Your task to perform on an android device: toggle show notifications on the lock screen Image 0: 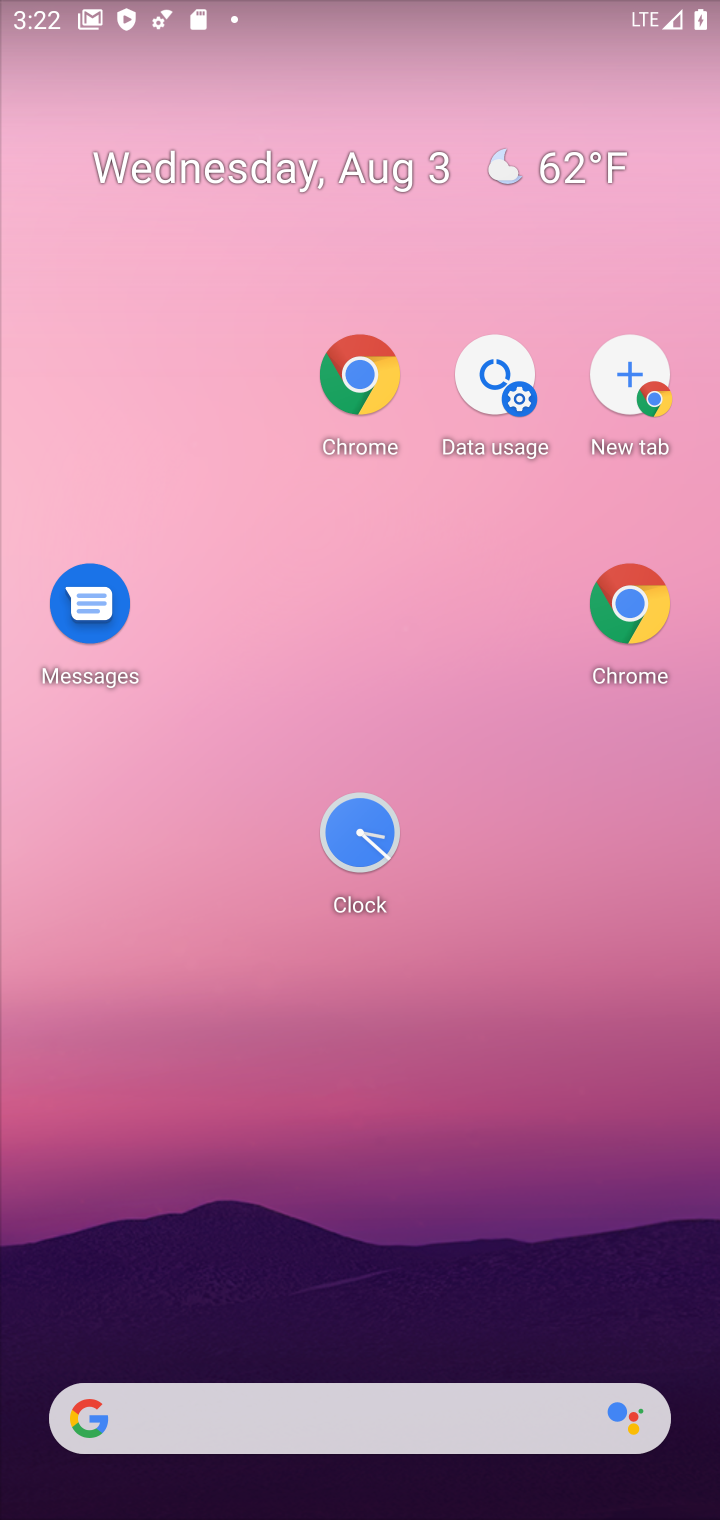
Step 0: drag from (501, 1383) to (300, 368)
Your task to perform on an android device: toggle show notifications on the lock screen Image 1: 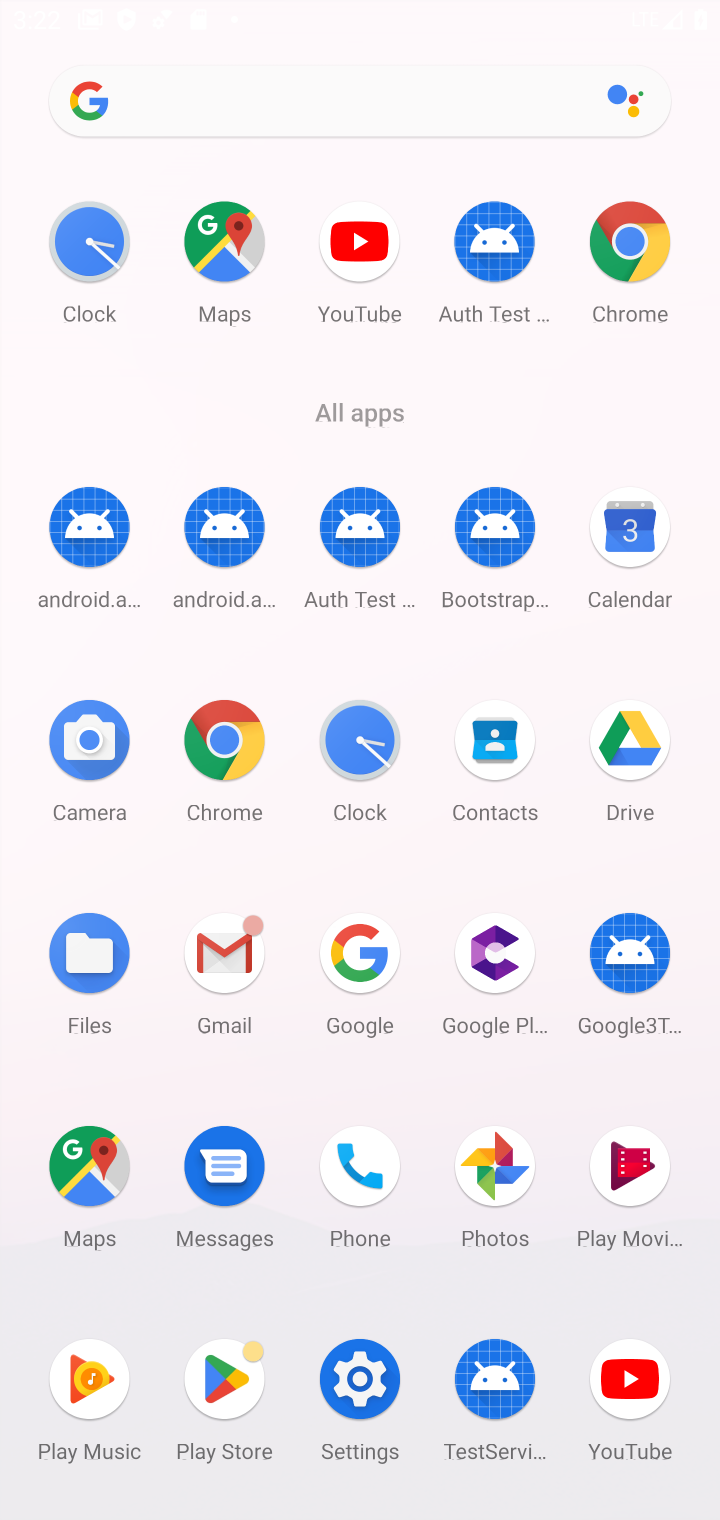
Step 1: drag from (457, 689) to (437, 392)
Your task to perform on an android device: toggle show notifications on the lock screen Image 2: 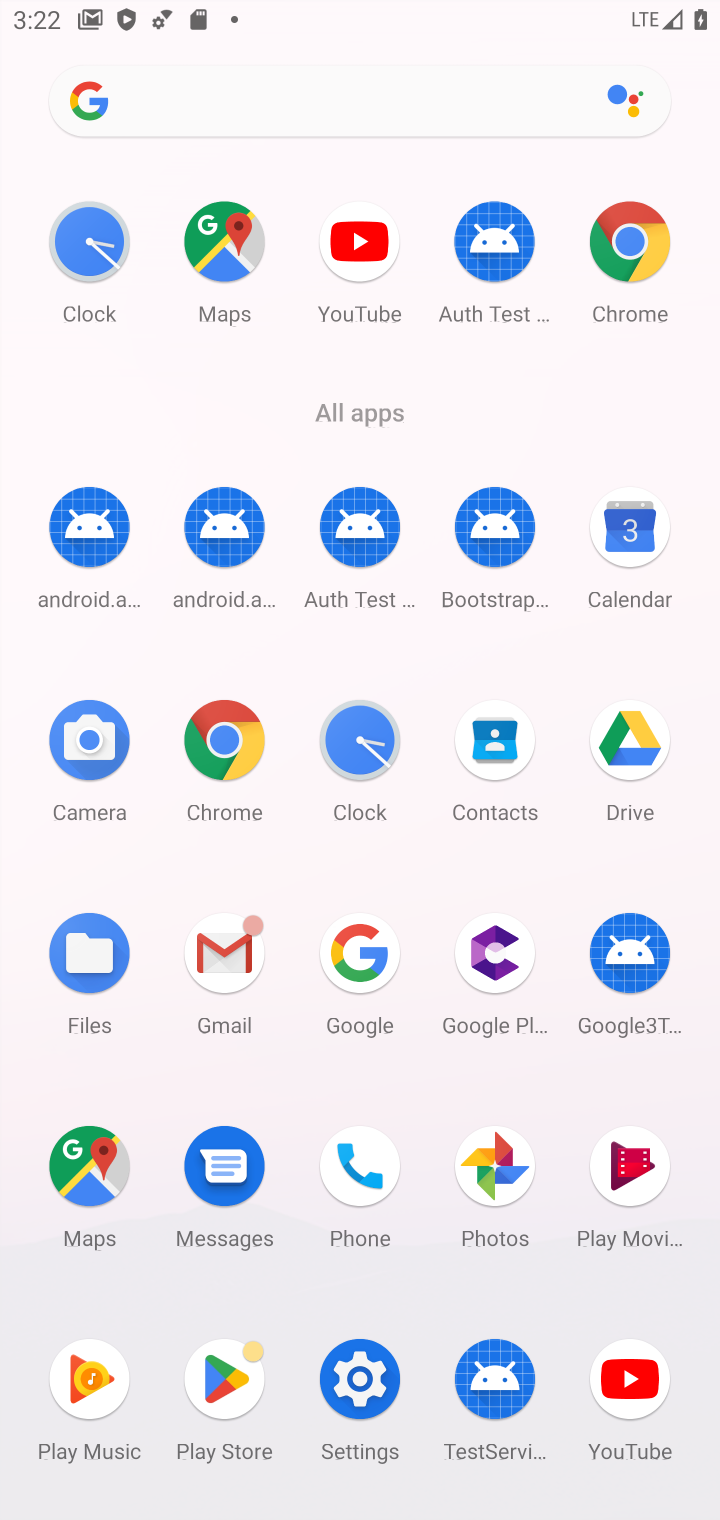
Step 2: click (343, 1372)
Your task to perform on an android device: toggle show notifications on the lock screen Image 3: 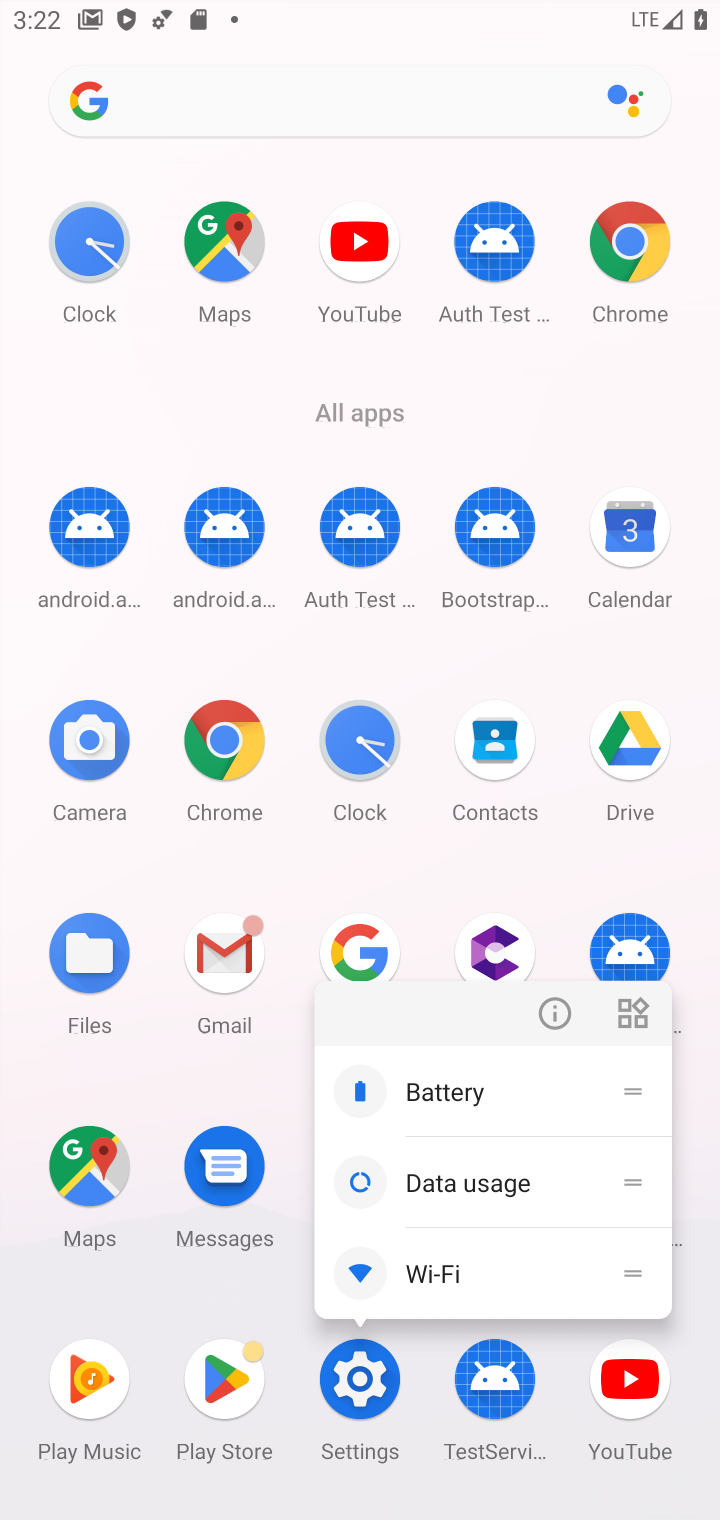
Step 3: click (349, 1369)
Your task to perform on an android device: toggle show notifications on the lock screen Image 4: 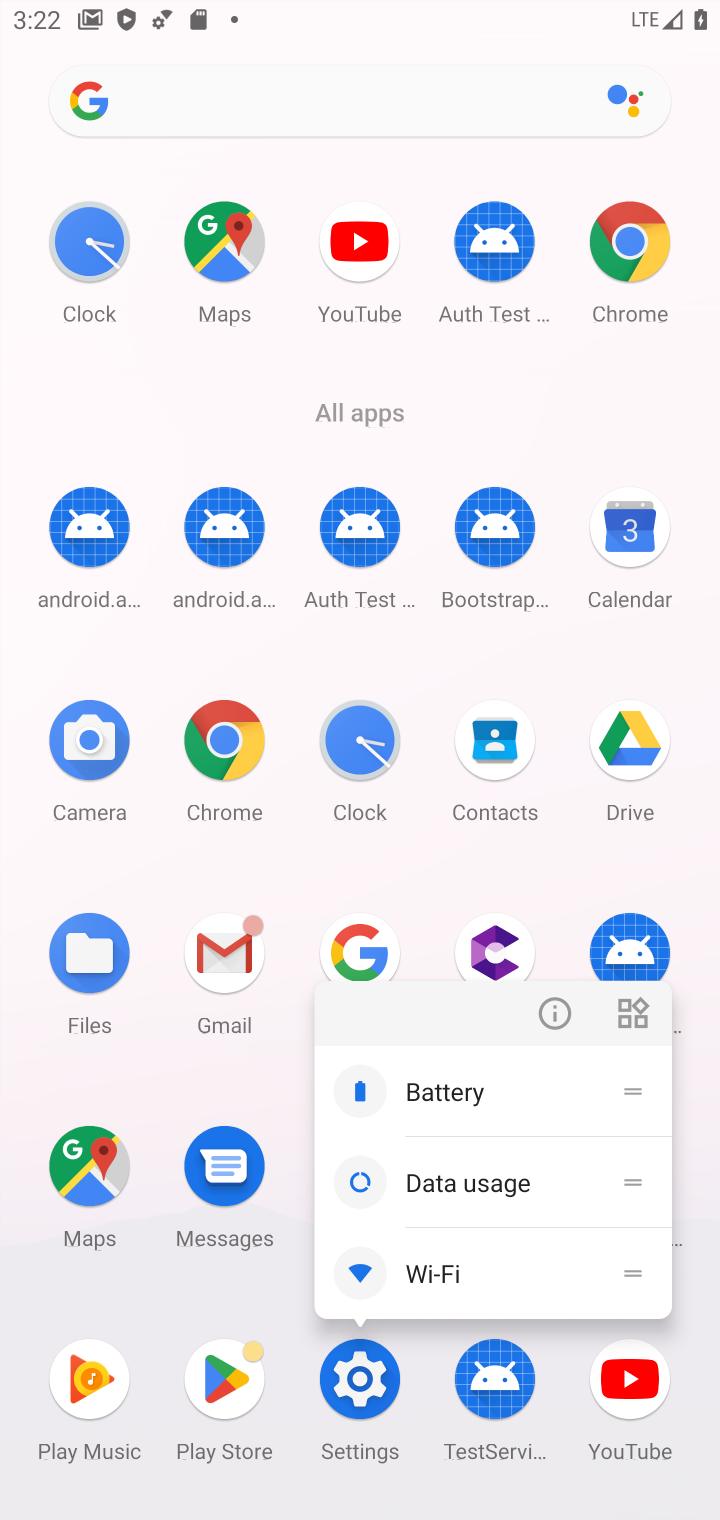
Step 4: click (356, 1384)
Your task to perform on an android device: toggle show notifications on the lock screen Image 5: 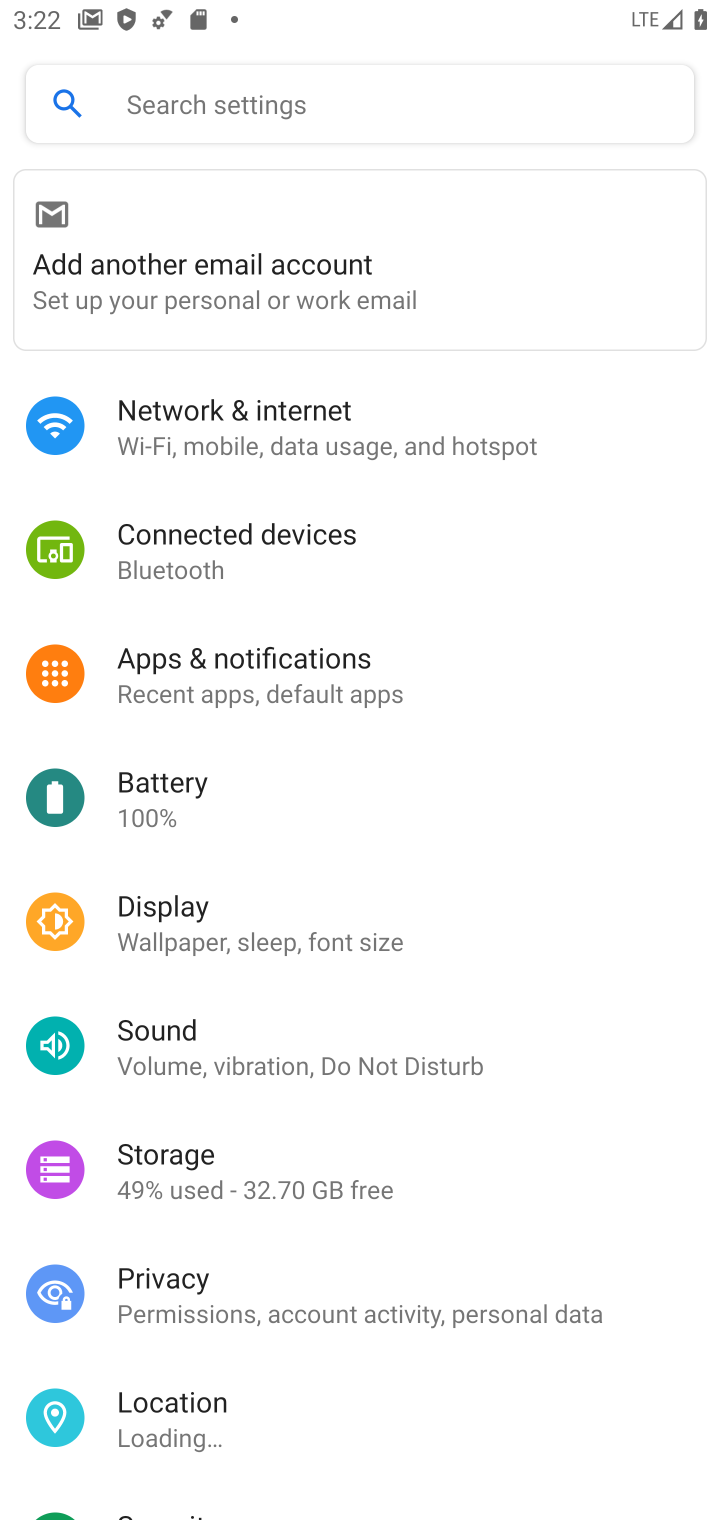
Step 5: click (175, 444)
Your task to perform on an android device: toggle show notifications on the lock screen Image 6: 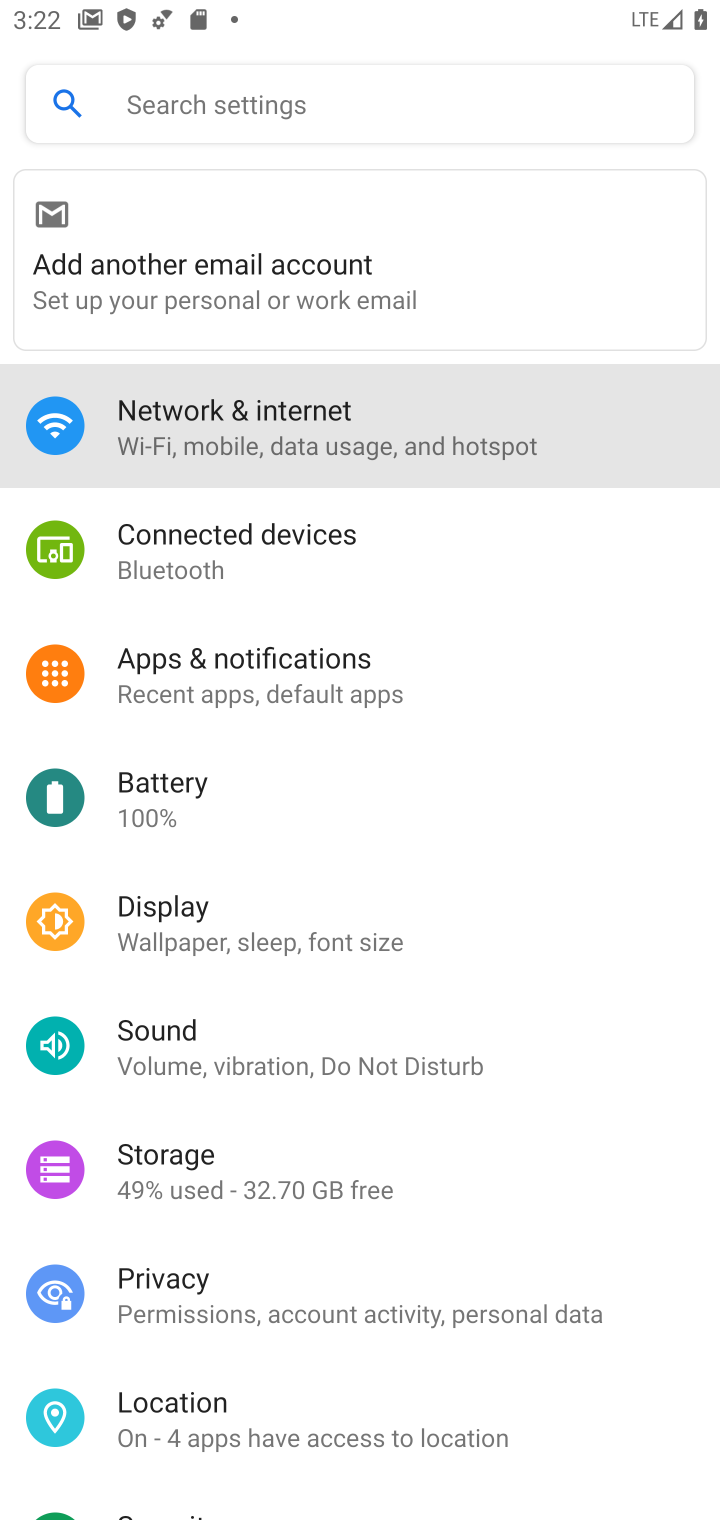
Step 6: click (196, 668)
Your task to perform on an android device: toggle show notifications on the lock screen Image 7: 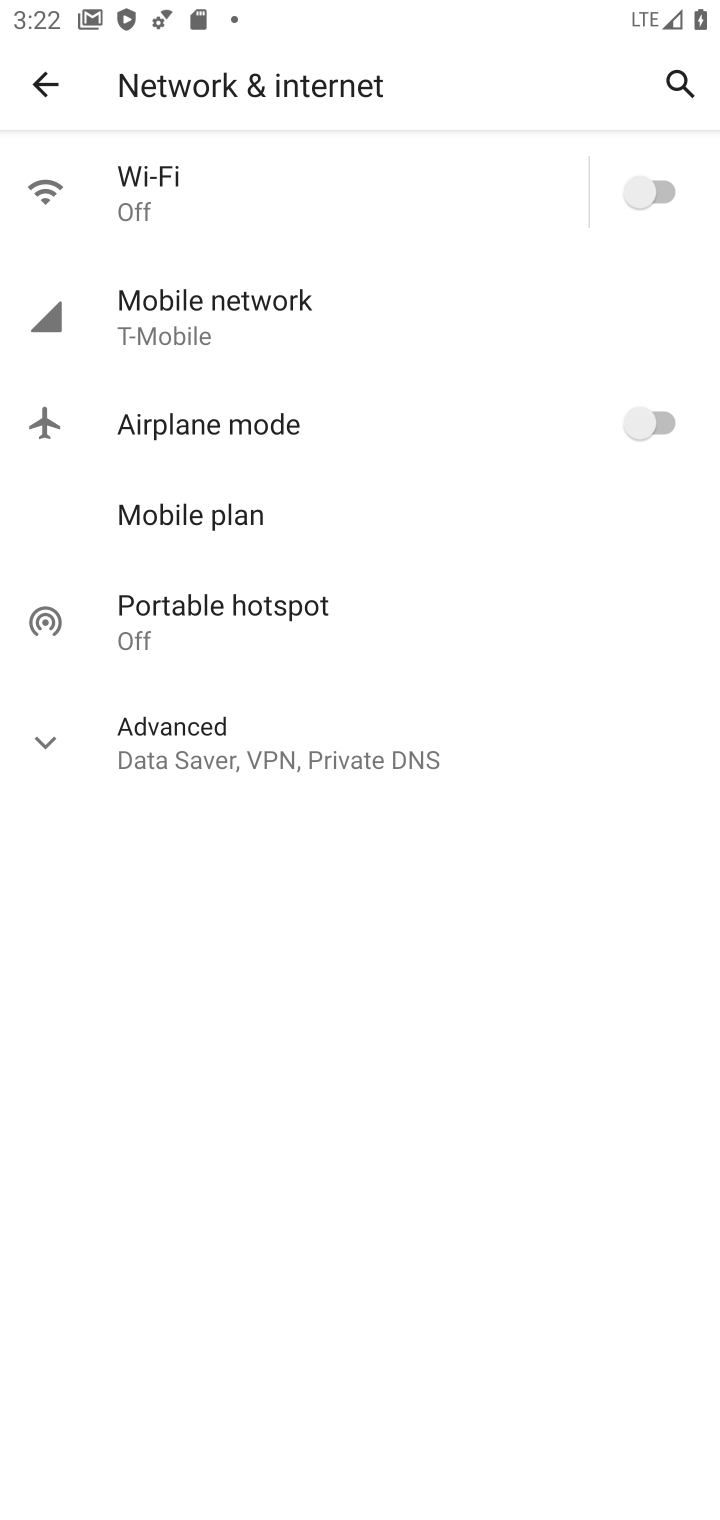
Step 7: click (36, 84)
Your task to perform on an android device: toggle show notifications on the lock screen Image 8: 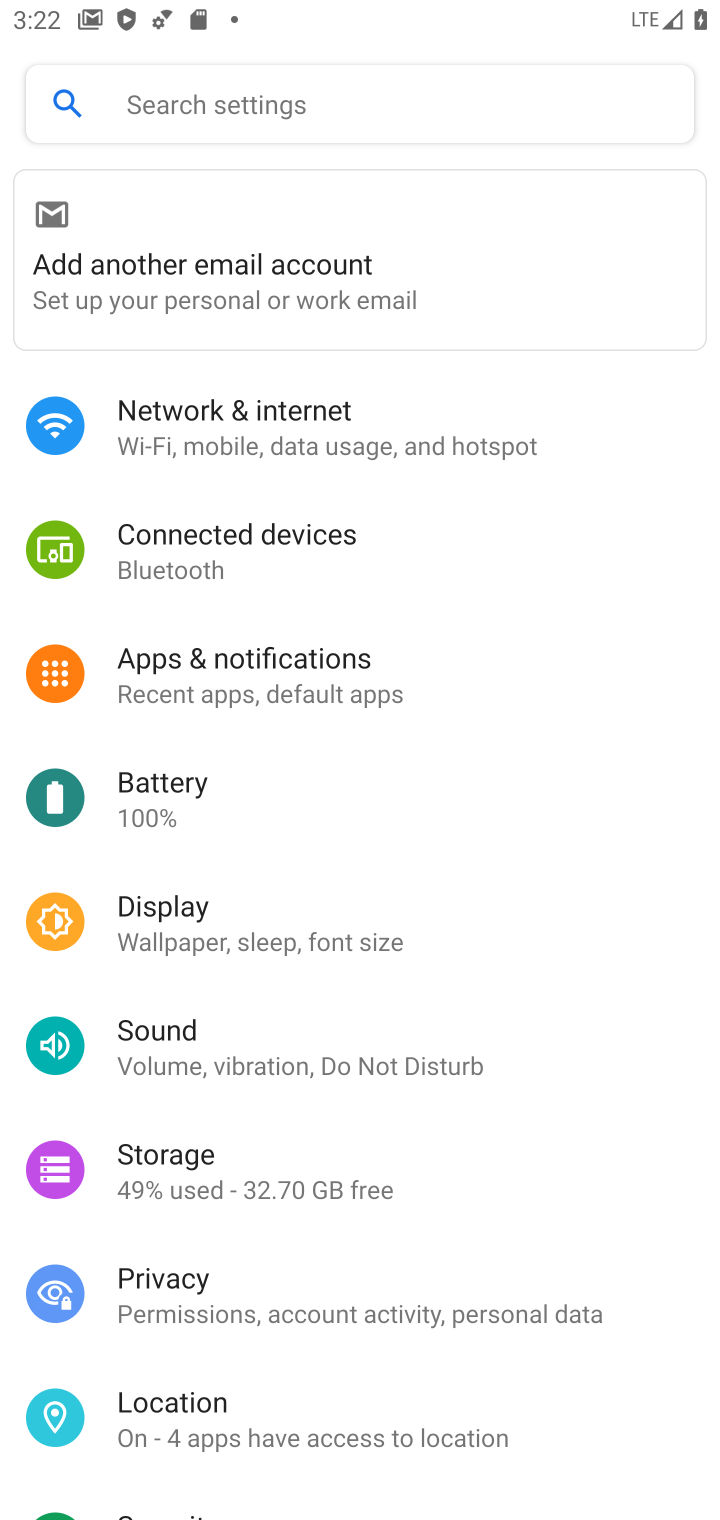
Step 8: click (238, 553)
Your task to perform on an android device: toggle show notifications on the lock screen Image 9: 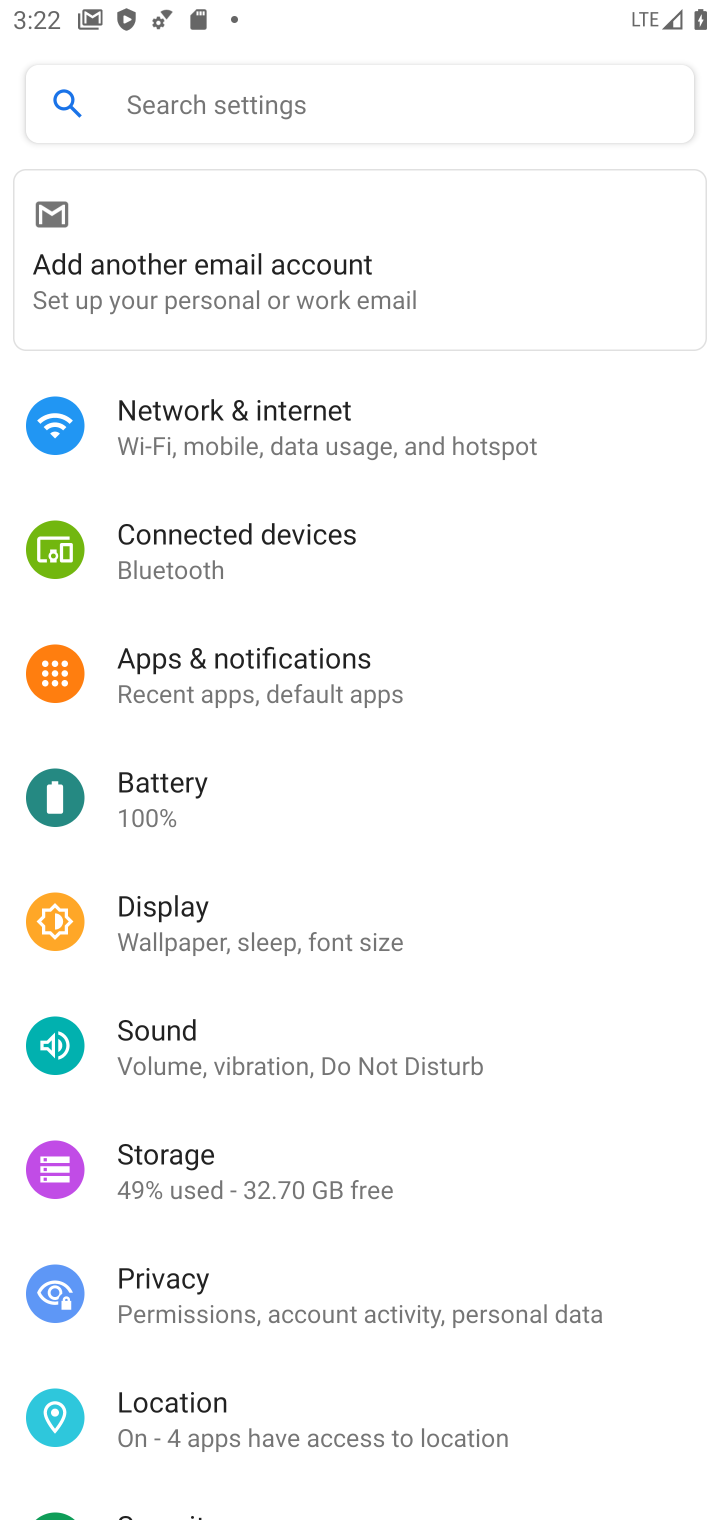
Step 9: click (203, 679)
Your task to perform on an android device: toggle show notifications on the lock screen Image 10: 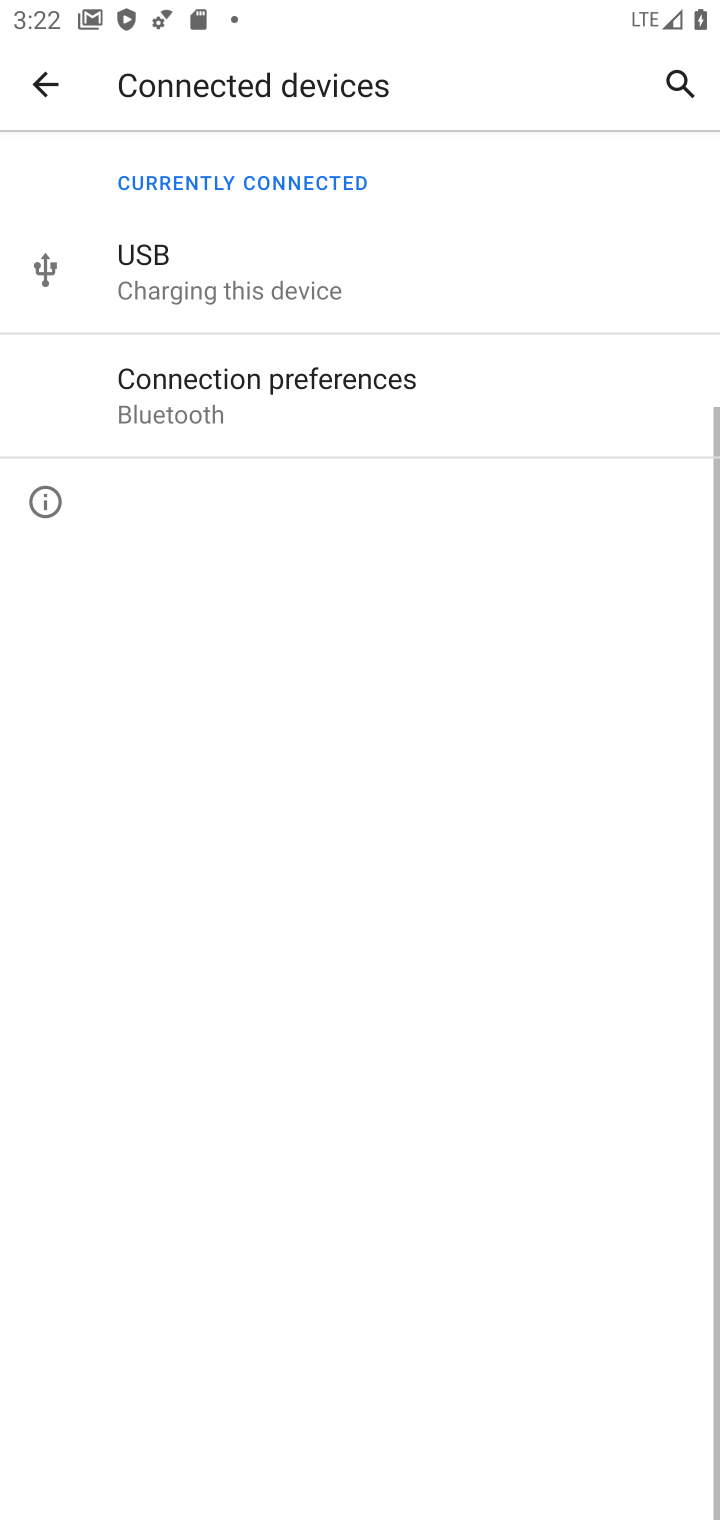
Step 10: click (203, 679)
Your task to perform on an android device: toggle show notifications on the lock screen Image 11: 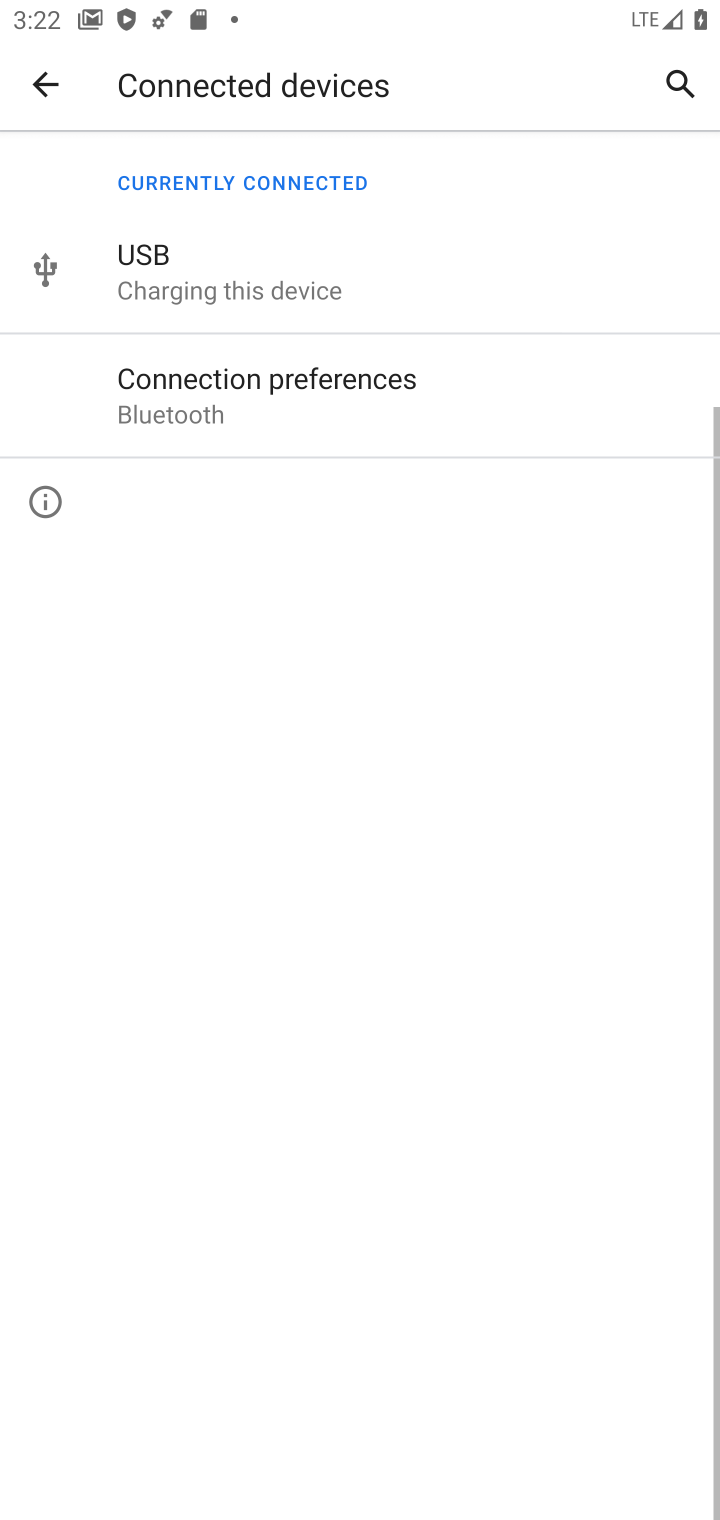
Step 11: click (46, 67)
Your task to perform on an android device: toggle show notifications on the lock screen Image 12: 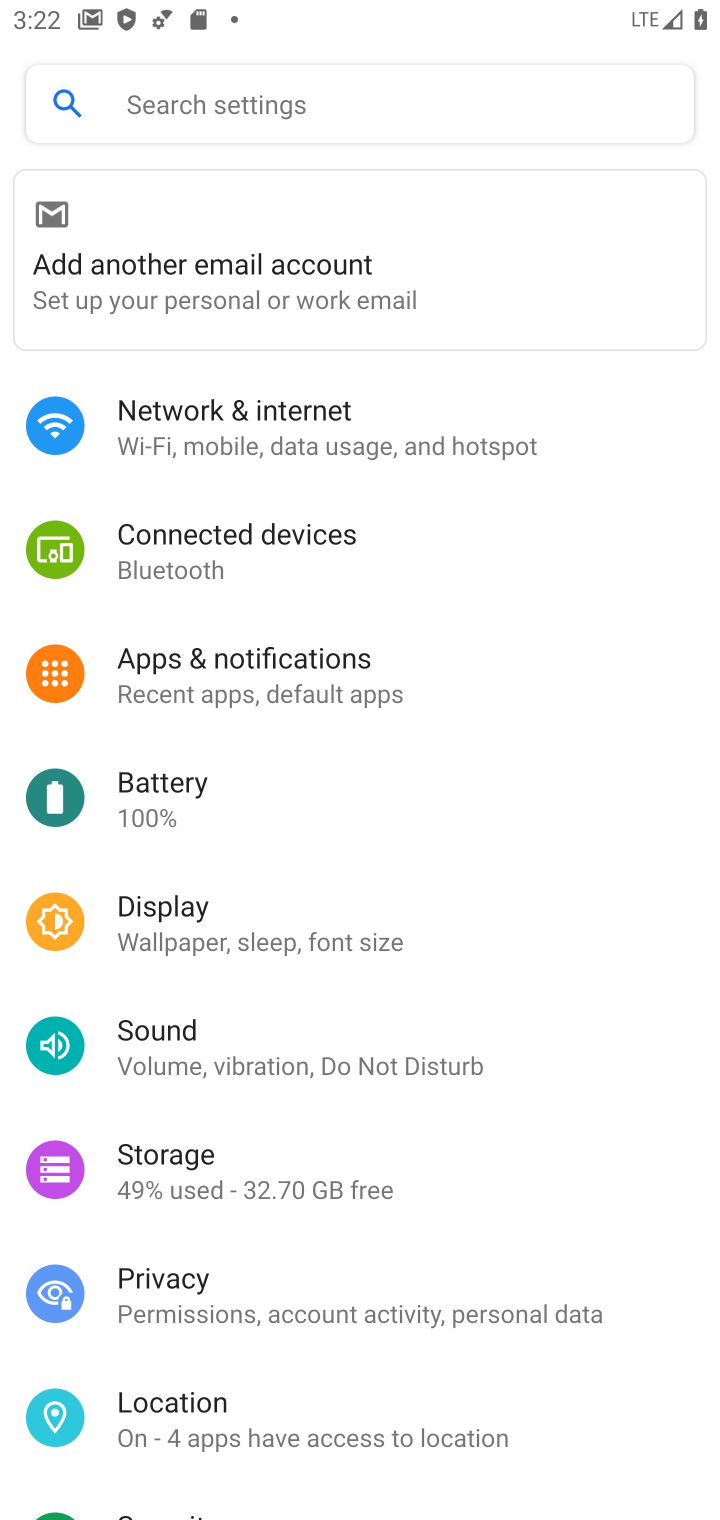
Step 12: drag from (244, 466) to (327, 681)
Your task to perform on an android device: toggle show notifications on the lock screen Image 13: 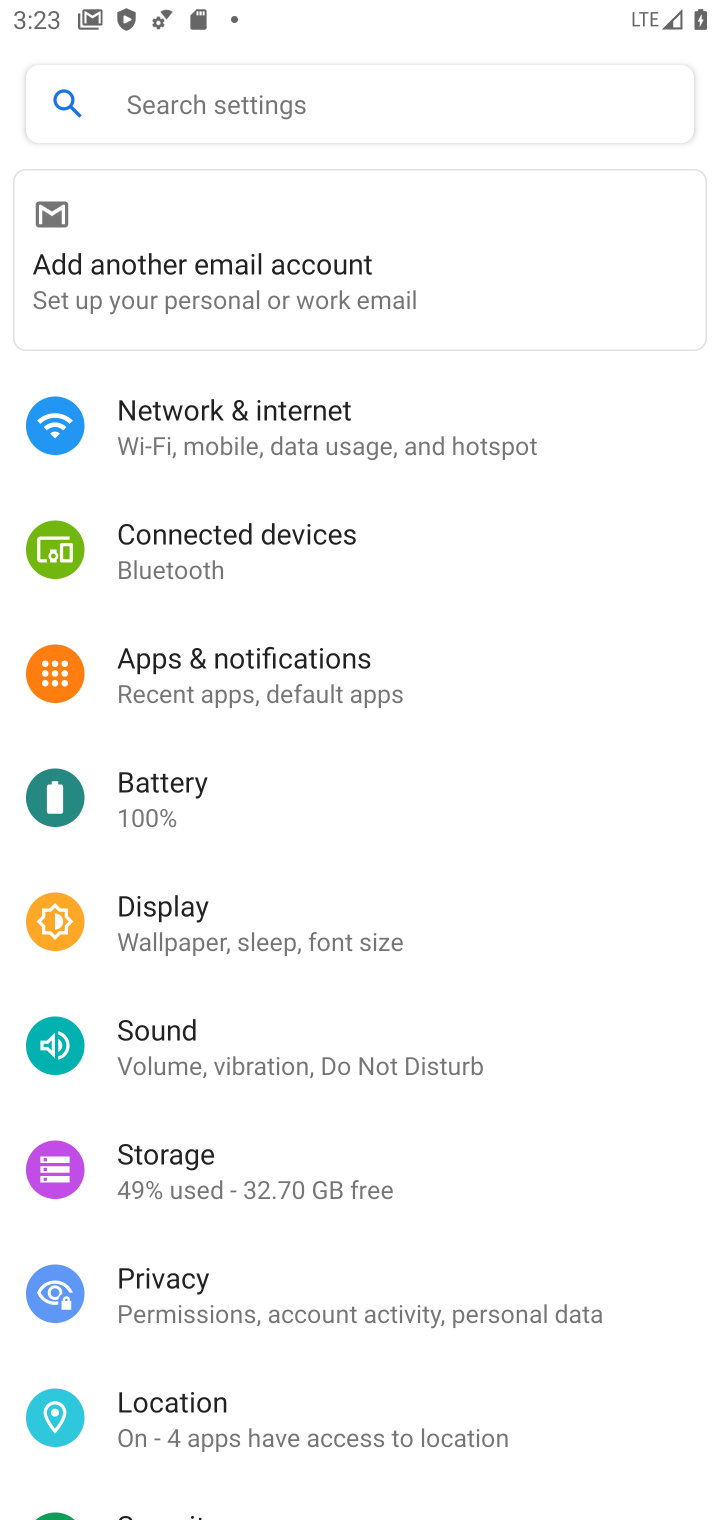
Step 13: click (216, 672)
Your task to perform on an android device: toggle show notifications on the lock screen Image 14: 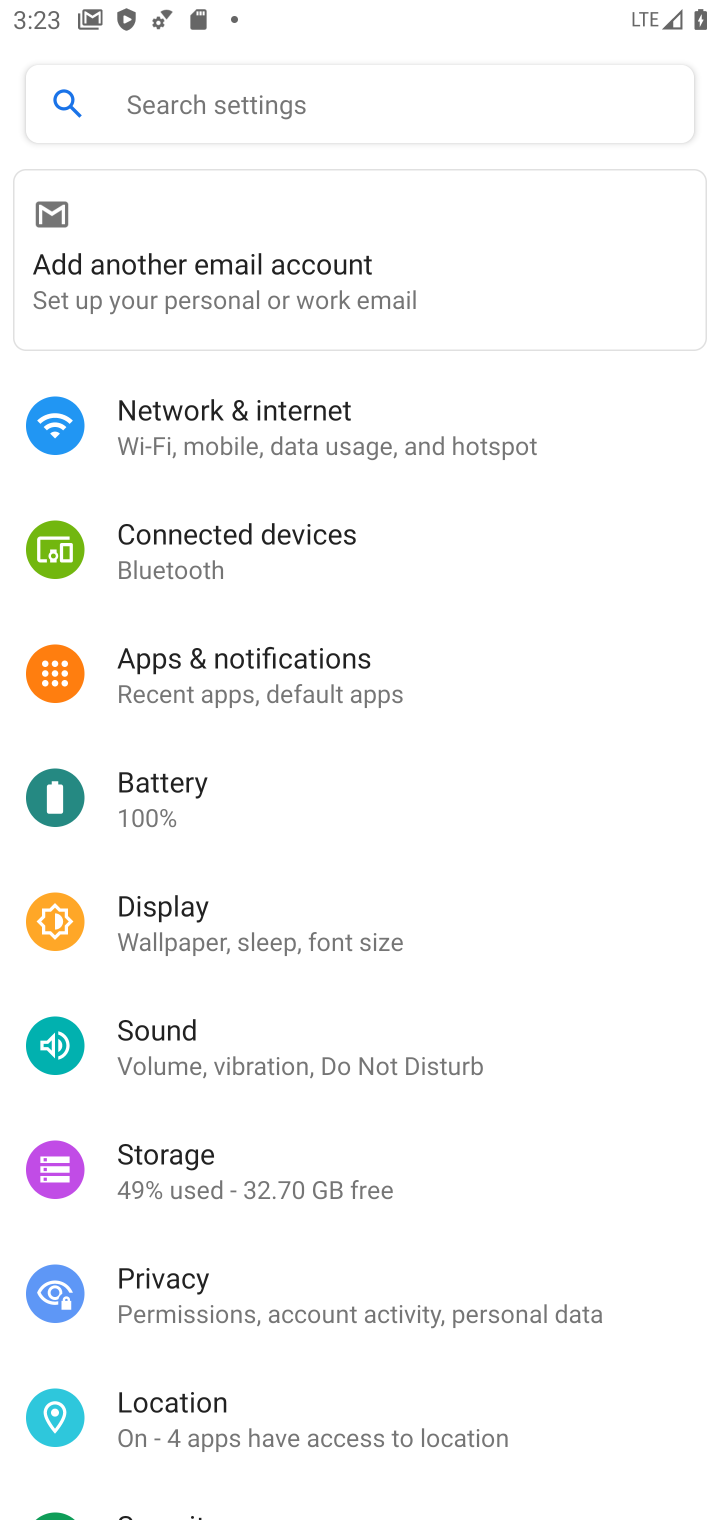
Step 14: click (220, 676)
Your task to perform on an android device: toggle show notifications on the lock screen Image 15: 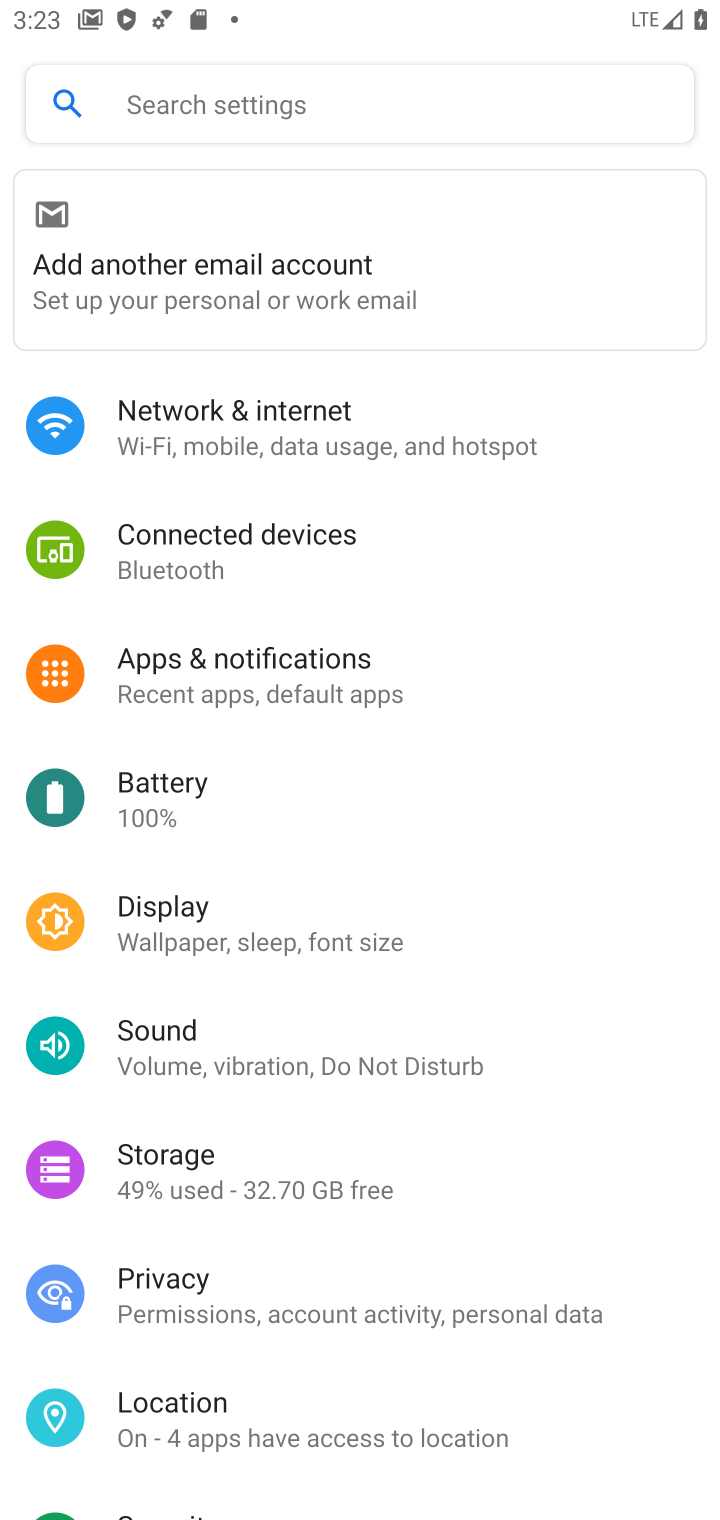
Step 15: click (220, 676)
Your task to perform on an android device: toggle show notifications on the lock screen Image 16: 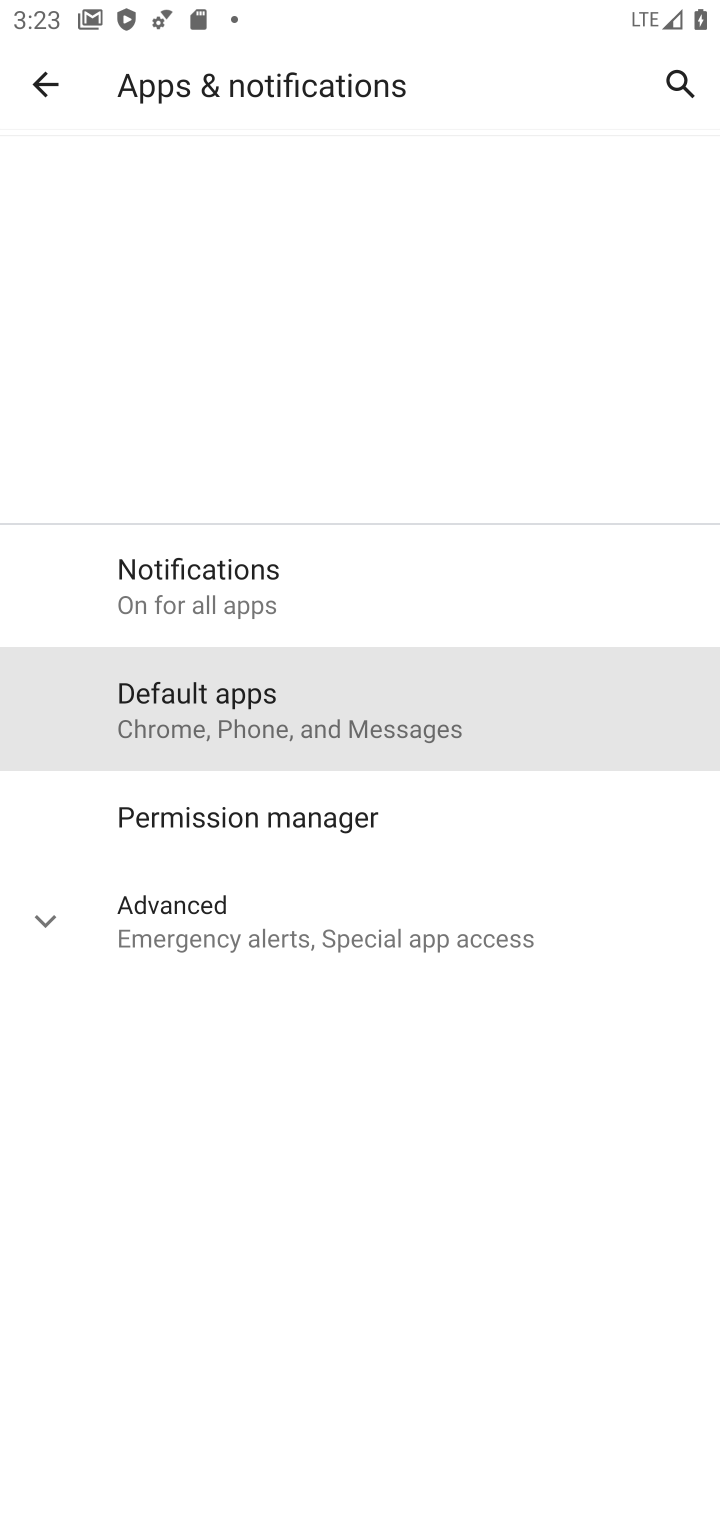
Step 16: click (220, 676)
Your task to perform on an android device: toggle show notifications on the lock screen Image 17: 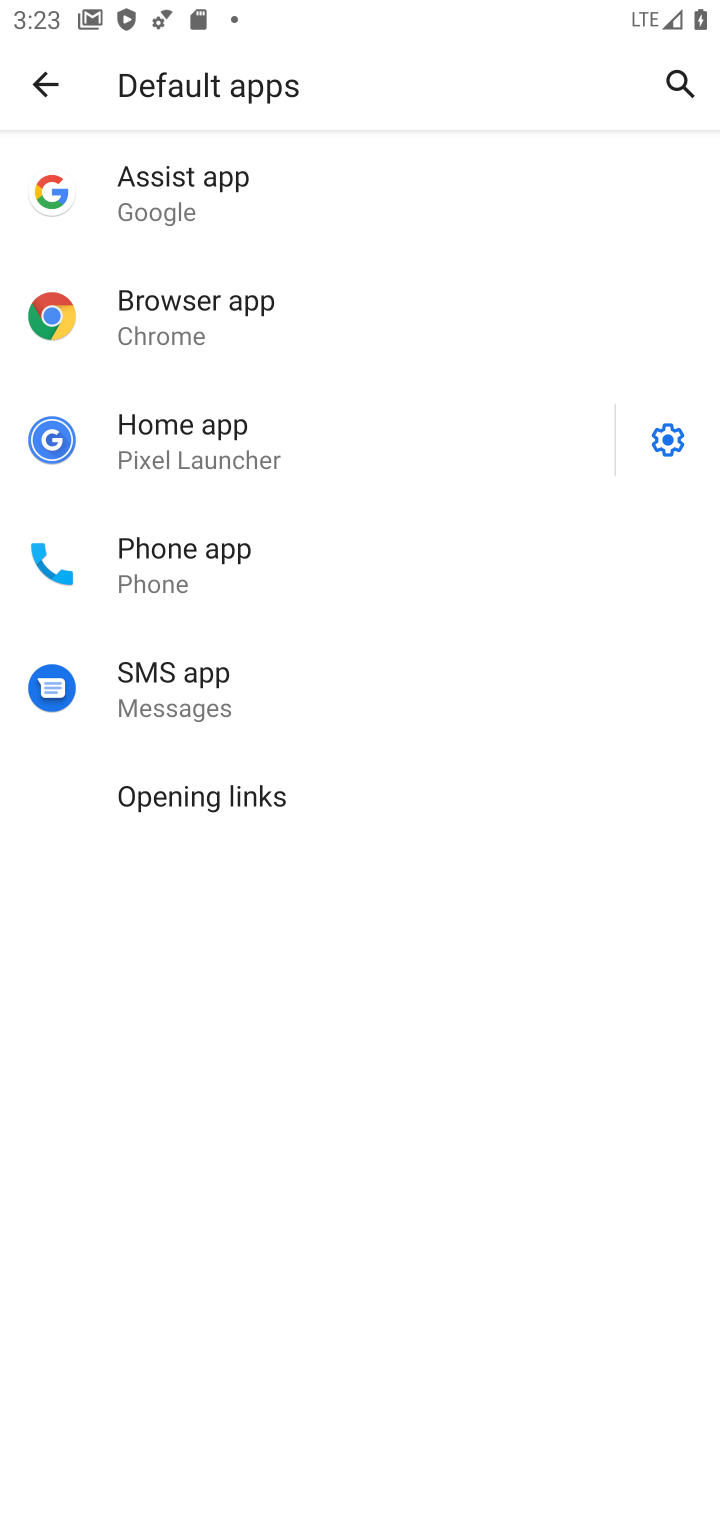
Step 17: click (68, 99)
Your task to perform on an android device: toggle show notifications on the lock screen Image 18: 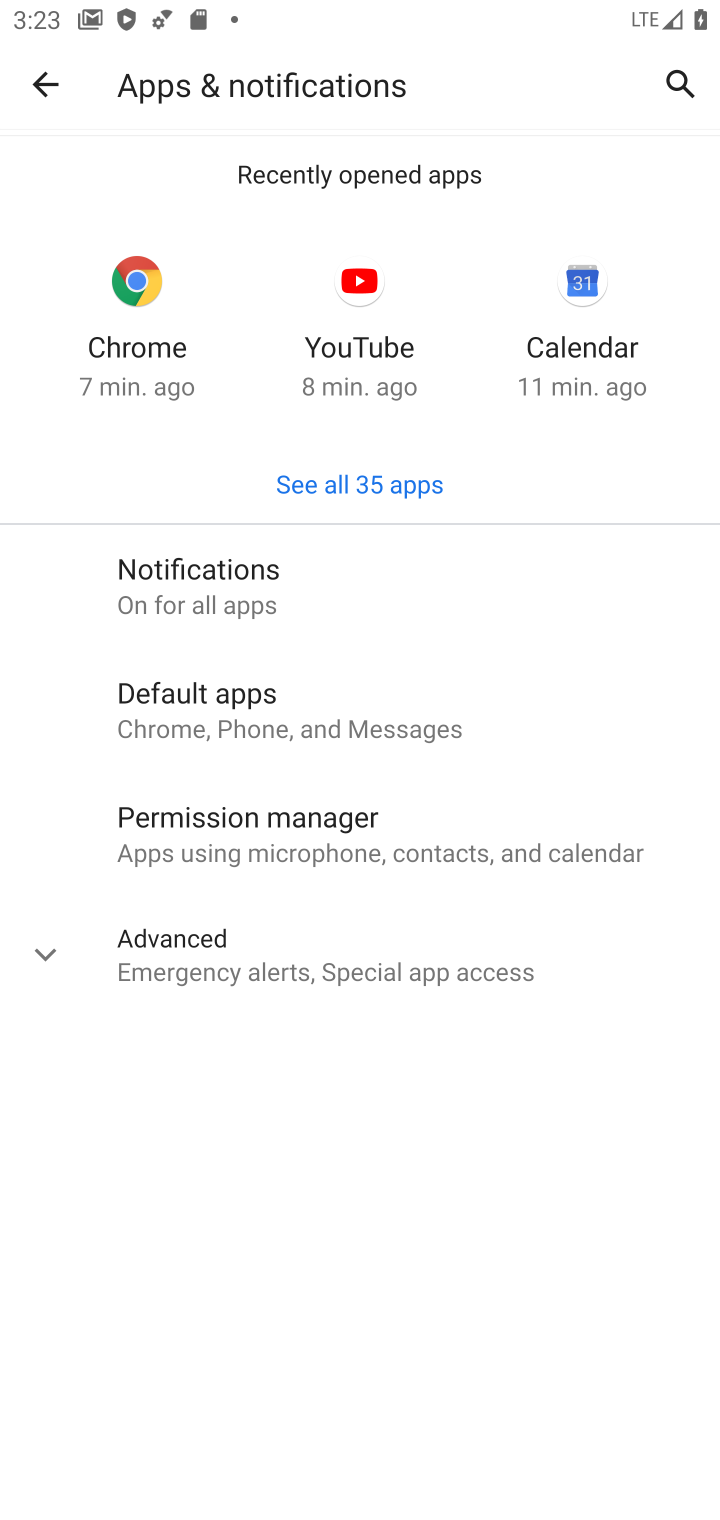
Step 18: click (255, 579)
Your task to perform on an android device: toggle show notifications on the lock screen Image 19: 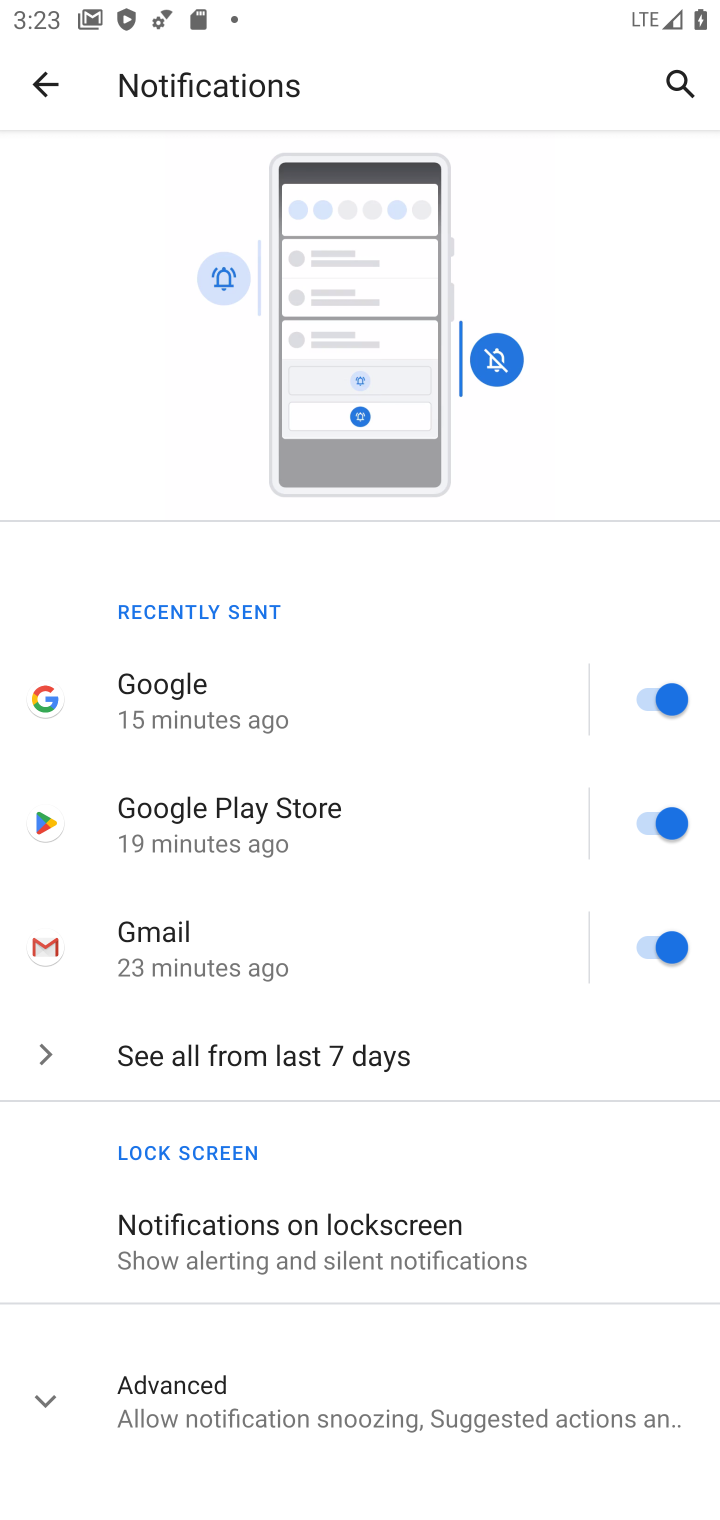
Step 19: click (258, 1230)
Your task to perform on an android device: toggle show notifications on the lock screen Image 20: 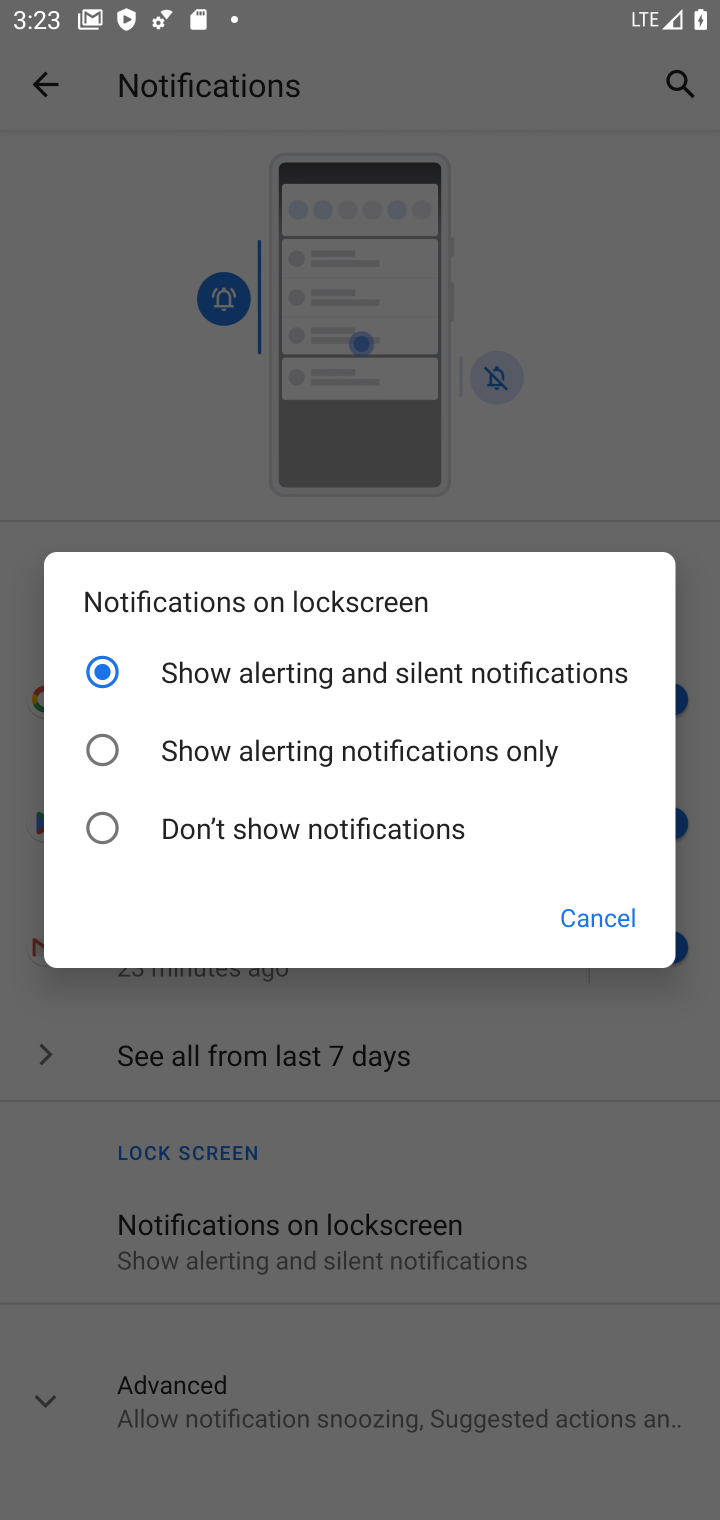
Step 20: click (605, 913)
Your task to perform on an android device: toggle show notifications on the lock screen Image 21: 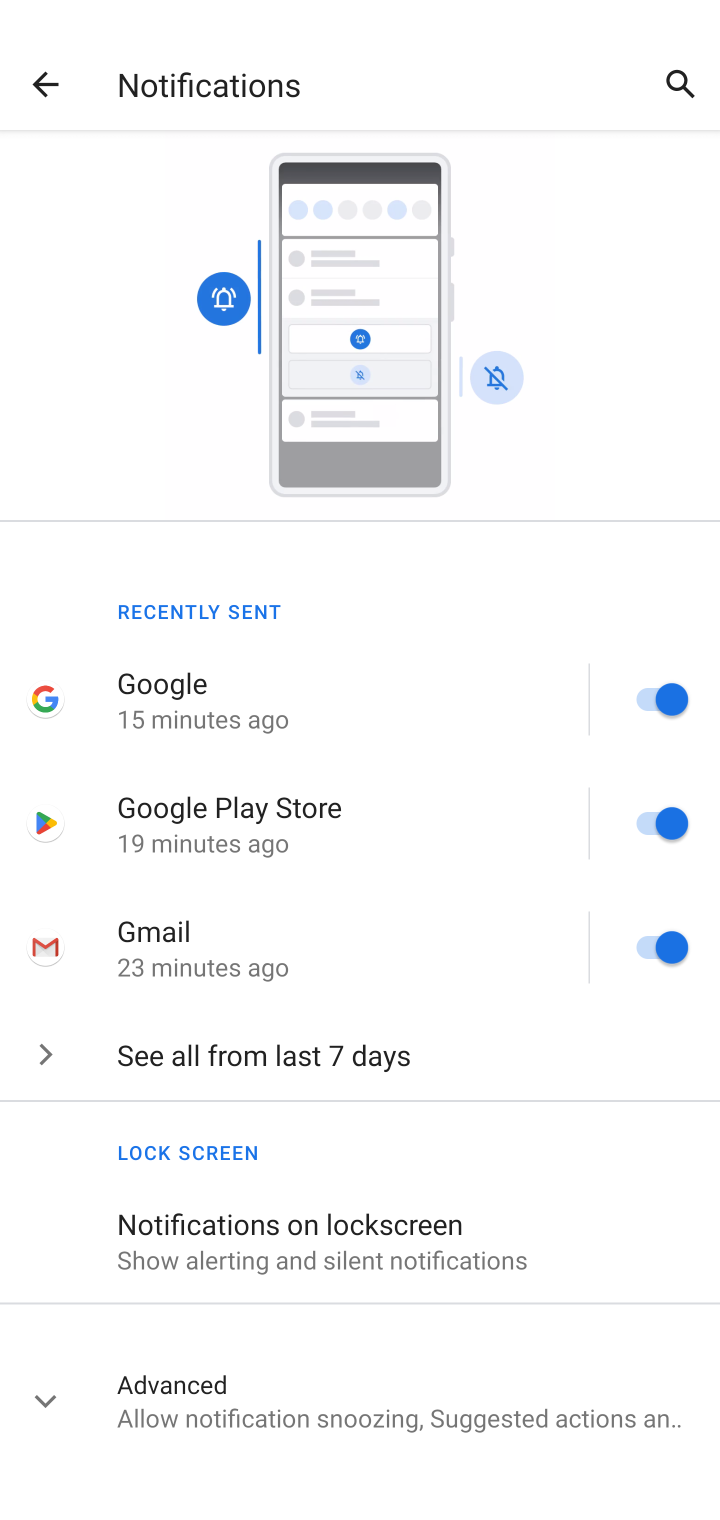
Step 21: task complete